Your task to perform on an android device: Go to network settings Image 0: 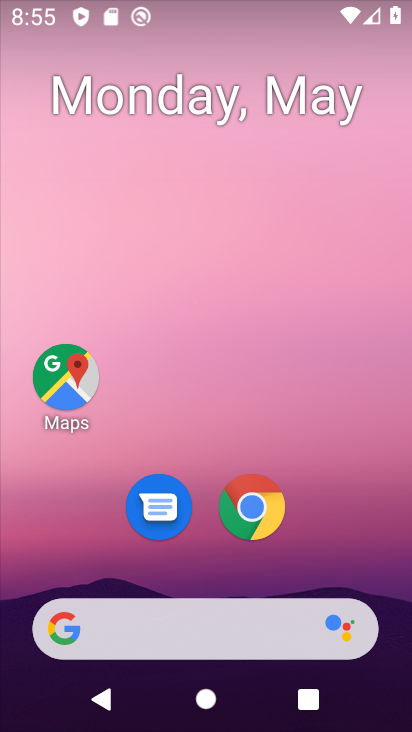
Step 0: drag from (216, 520) to (285, 5)
Your task to perform on an android device: Go to network settings Image 1: 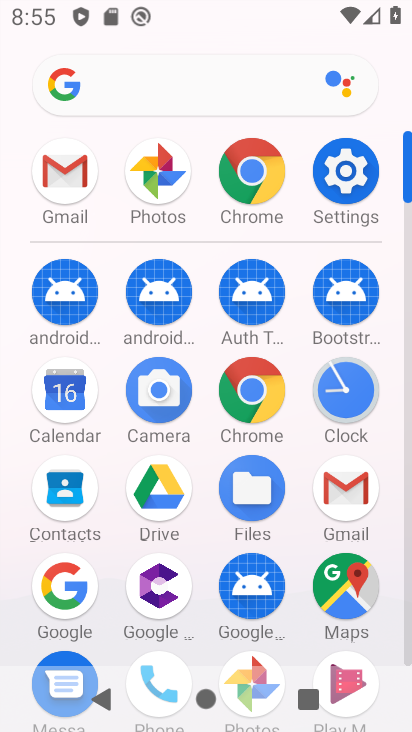
Step 1: click (348, 202)
Your task to perform on an android device: Go to network settings Image 2: 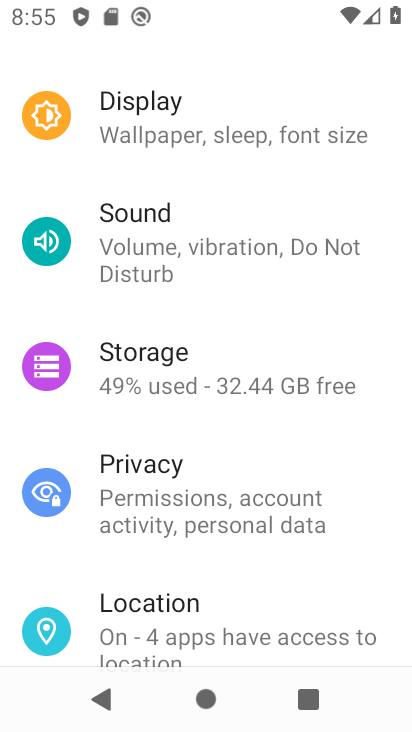
Step 2: drag from (248, 212) to (205, 549)
Your task to perform on an android device: Go to network settings Image 3: 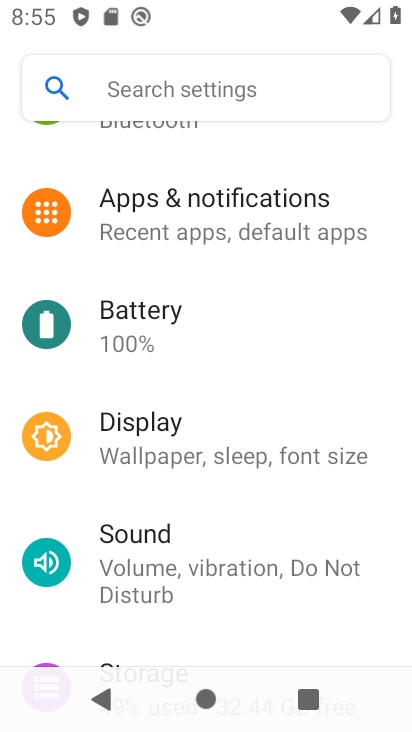
Step 3: drag from (221, 199) to (230, 615)
Your task to perform on an android device: Go to network settings Image 4: 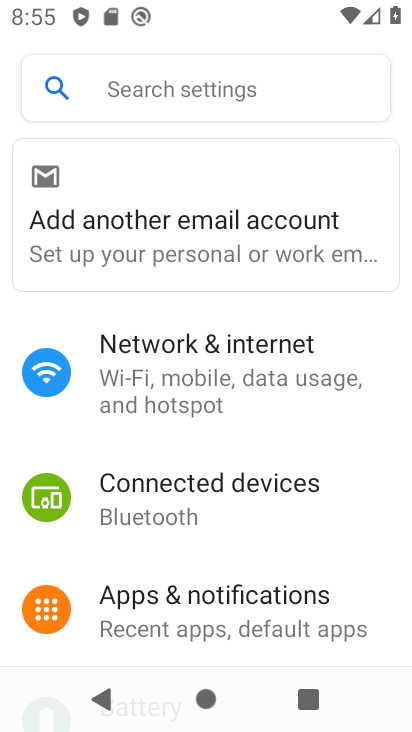
Step 4: click (225, 391)
Your task to perform on an android device: Go to network settings Image 5: 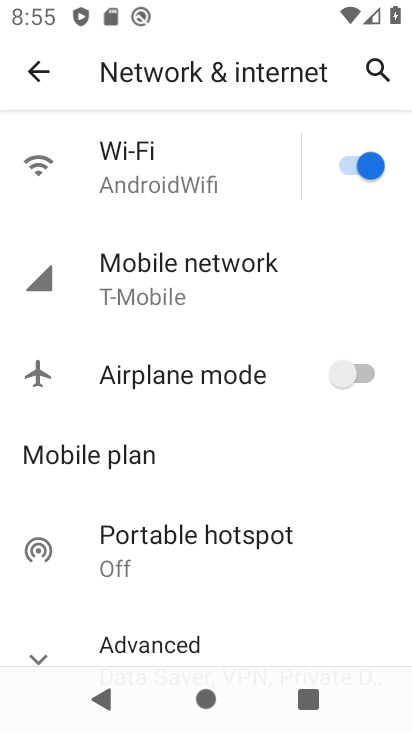
Step 5: click (212, 282)
Your task to perform on an android device: Go to network settings Image 6: 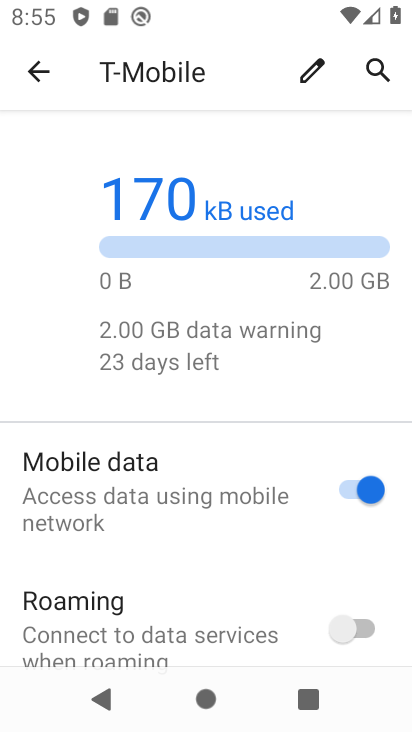
Step 6: task complete